Your task to perform on an android device: Go to battery settings Image 0: 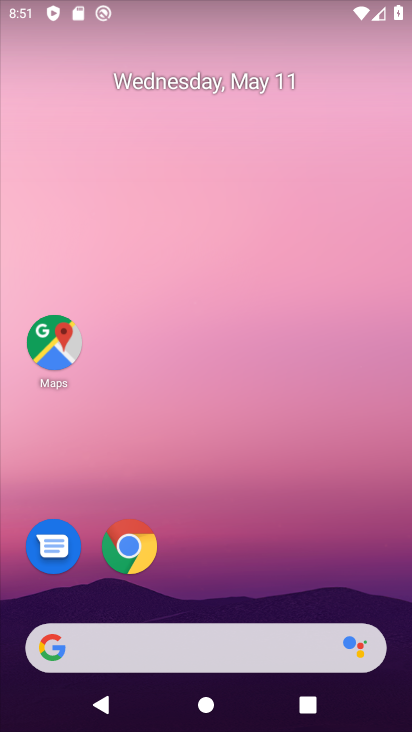
Step 0: drag from (344, 8) to (299, 331)
Your task to perform on an android device: Go to battery settings Image 1: 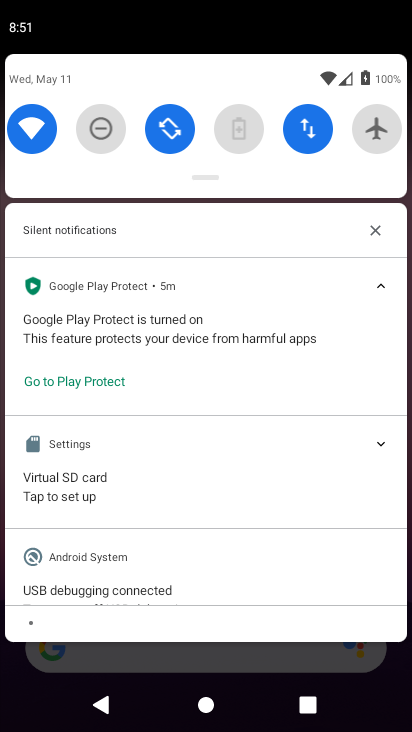
Step 1: drag from (227, 170) to (256, 488)
Your task to perform on an android device: Go to battery settings Image 2: 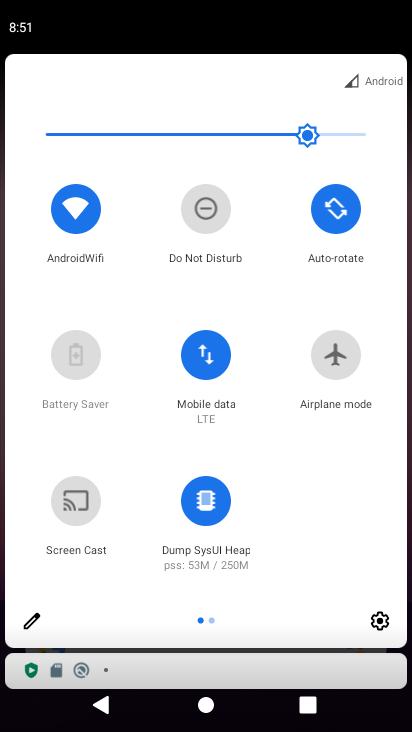
Step 2: click (380, 622)
Your task to perform on an android device: Go to battery settings Image 3: 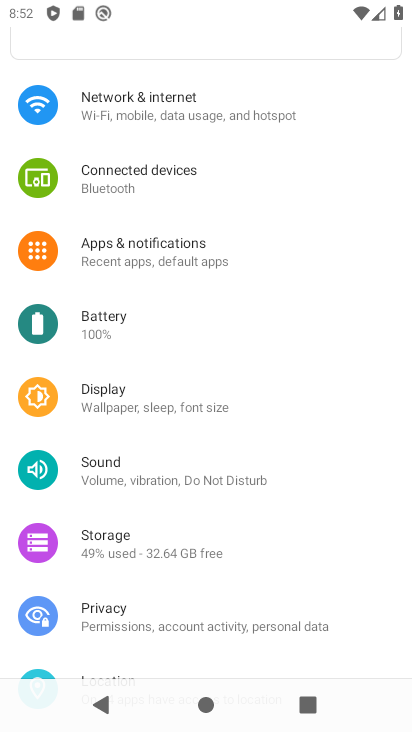
Step 3: click (159, 323)
Your task to perform on an android device: Go to battery settings Image 4: 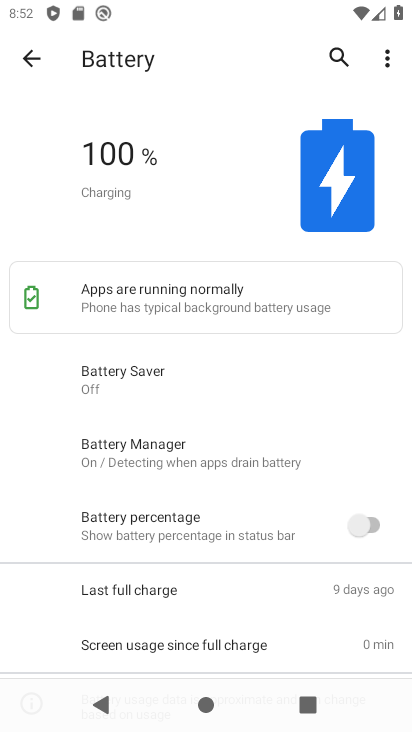
Step 4: task complete